Your task to perform on an android device: turn off javascript in the chrome app Image 0: 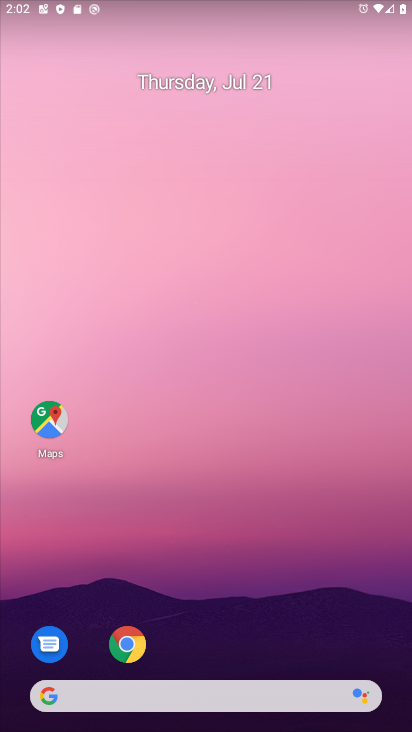
Step 0: click (143, 656)
Your task to perform on an android device: turn off javascript in the chrome app Image 1: 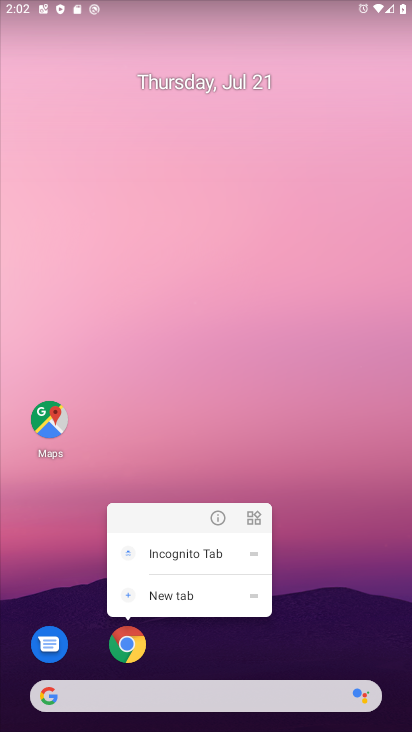
Step 1: click (131, 650)
Your task to perform on an android device: turn off javascript in the chrome app Image 2: 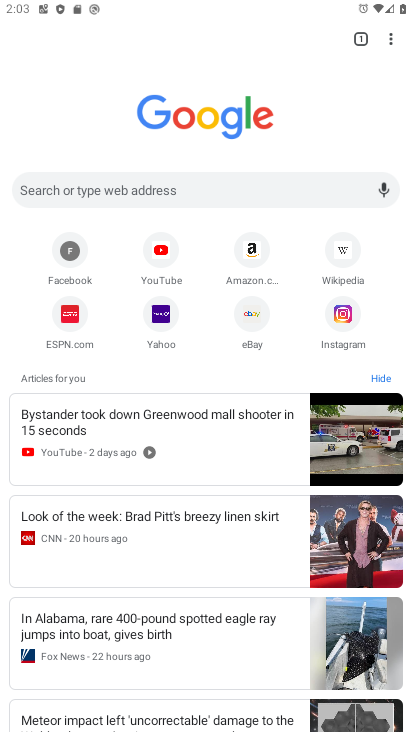
Step 2: click (396, 36)
Your task to perform on an android device: turn off javascript in the chrome app Image 3: 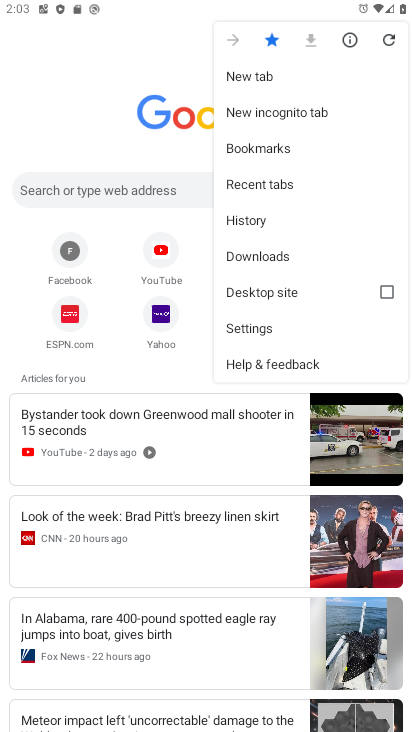
Step 3: click (266, 331)
Your task to perform on an android device: turn off javascript in the chrome app Image 4: 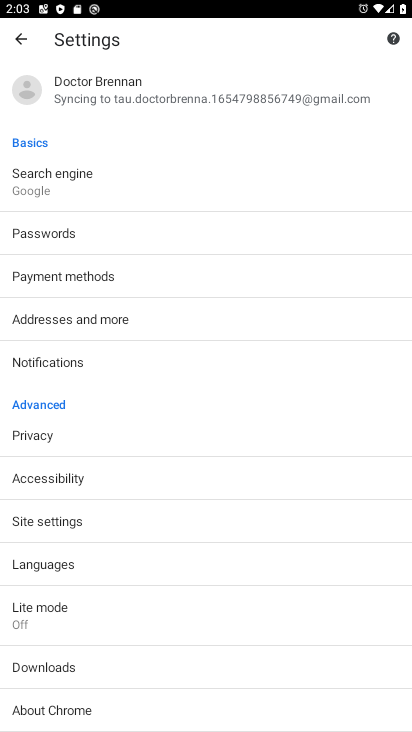
Step 4: click (71, 513)
Your task to perform on an android device: turn off javascript in the chrome app Image 5: 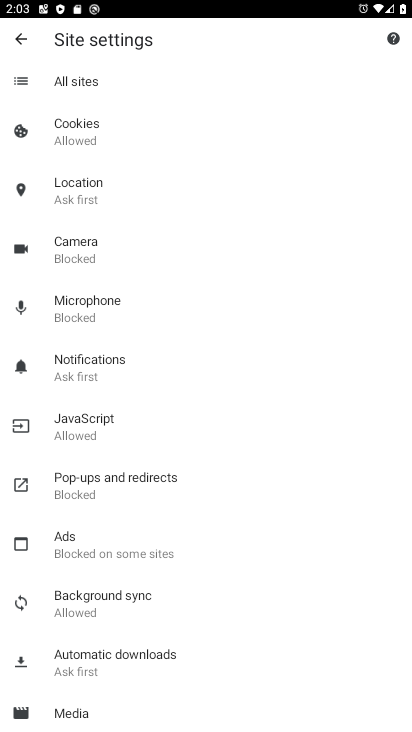
Step 5: click (110, 431)
Your task to perform on an android device: turn off javascript in the chrome app Image 6: 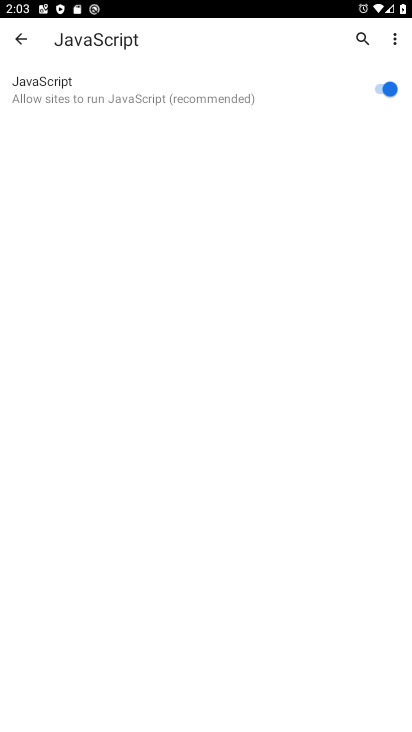
Step 6: click (381, 90)
Your task to perform on an android device: turn off javascript in the chrome app Image 7: 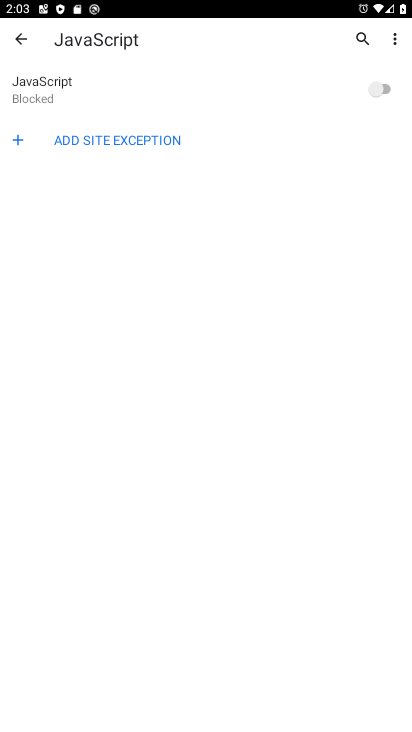
Step 7: task complete